Your task to perform on an android device: Open internet settings Image 0: 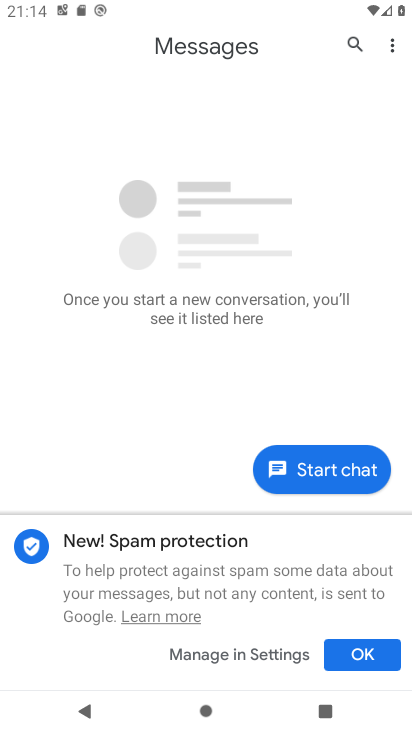
Step 0: press home button
Your task to perform on an android device: Open internet settings Image 1: 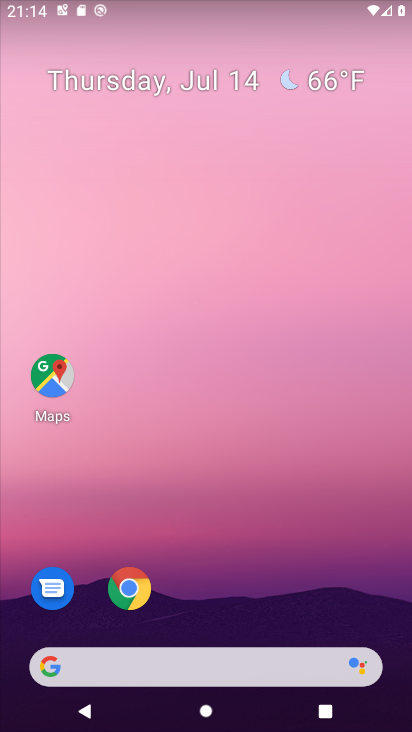
Step 1: drag from (370, 565) to (372, 145)
Your task to perform on an android device: Open internet settings Image 2: 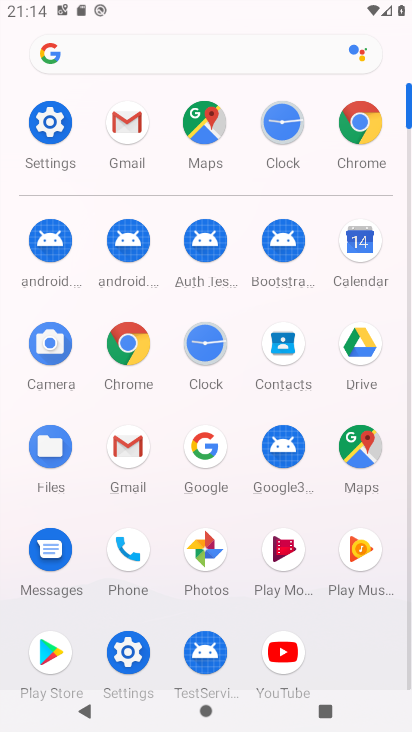
Step 2: click (132, 656)
Your task to perform on an android device: Open internet settings Image 3: 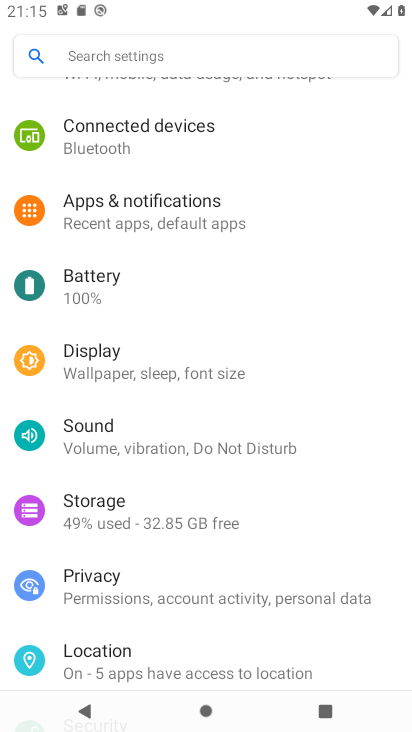
Step 3: drag from (313, 537) to (317, 401)
Your task to perform on an android device: Open internet settings Image 4: 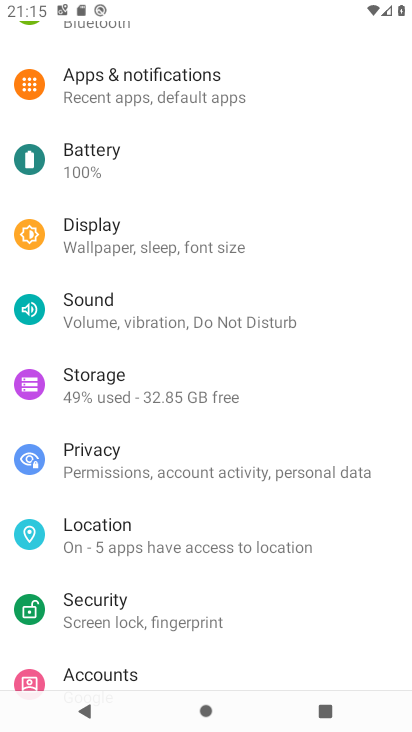
Step 4: drag from (343, 563) to (341, 467)
Your task to perform on an android device: Open internet settings Image 5: 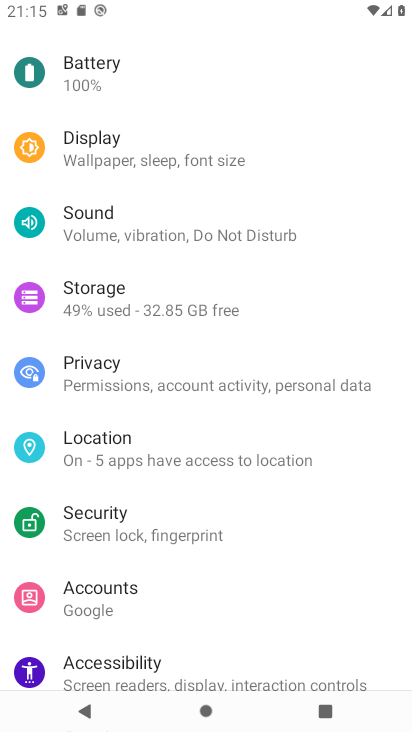
Step 5: drag from (355, 573) to (357, 468)
Your task to perform on an android device: Open internet settings Image 6: 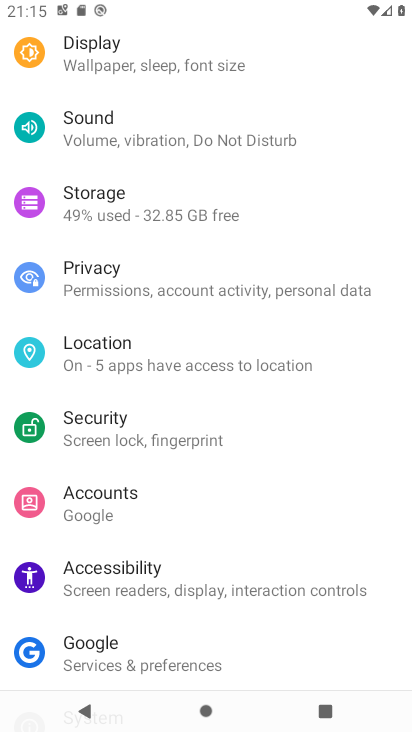
Step 6: drag from (330, 613) to (330, 523)
Your task to perform on an android device: Open internet settings Image 7: 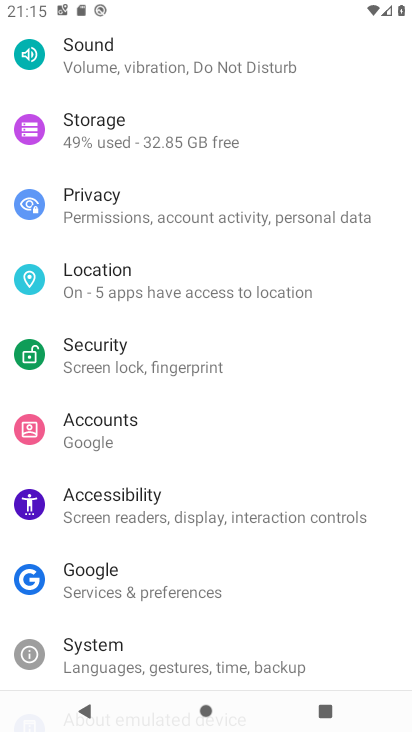
Step 7: drag from (329, 623) to (330, 402)
Your task to perform on an android device: Open internet settings Image 8: 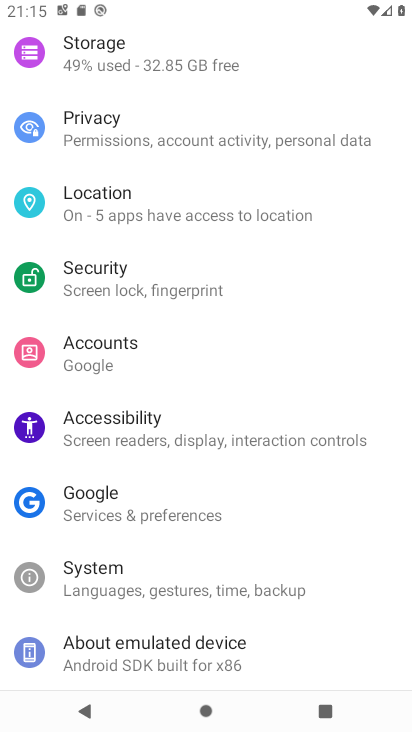
Step 8: drag from (340, 311) to (343, 387)
Your task to perform on an android device: Open internet settings Image 9: 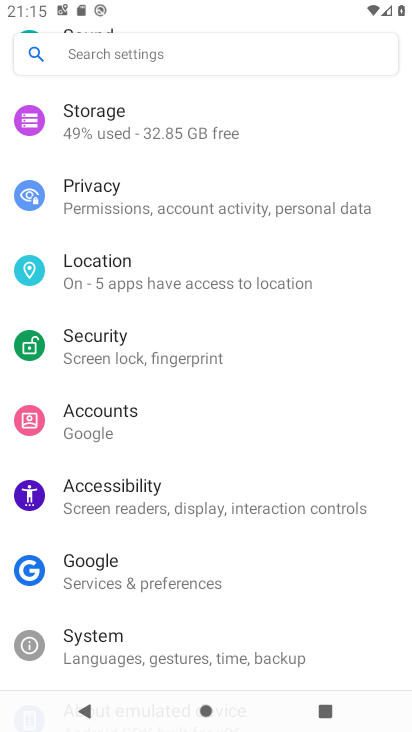
Step 9: drag from (343, 305) to (339, 393)
Your task to perform on an android device: Open internet settings Image 10: 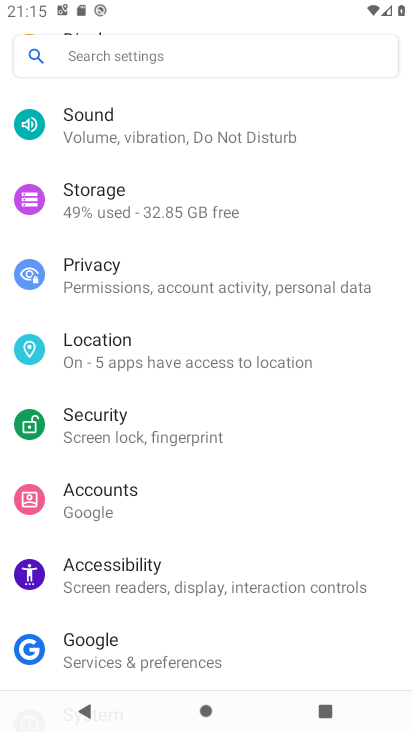
Step 10: drag from (351, 278) to (352, 379)
Your task to perform on an android device: Open internet settings Image 11: 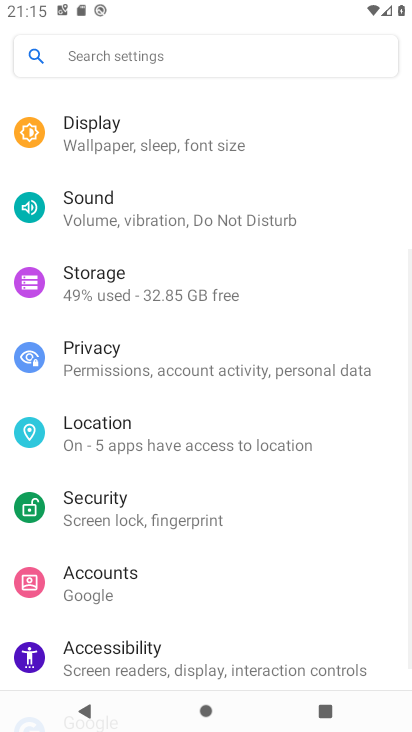
Step 11: drag from (350, 278) to (352, 372)
Your task to perform on an android device: Open internet settings Image 12: 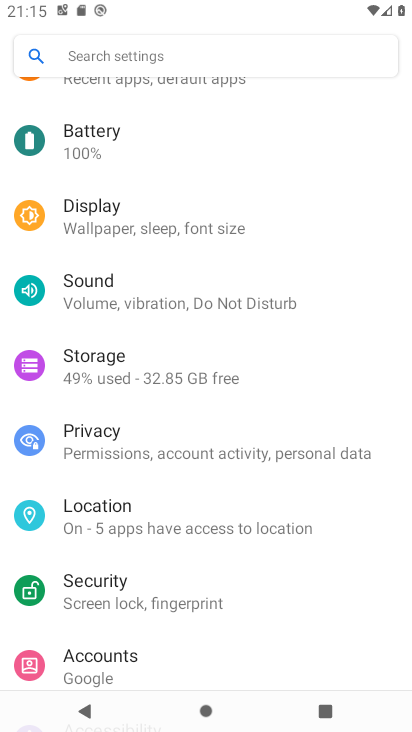
Step 12: drag from (353, 277) to (354, 349)
Your task to perform on an android device: Open internet settings Image 13: 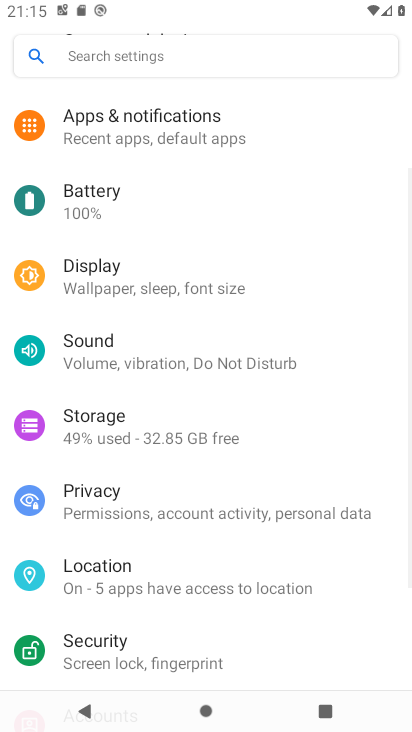
Step 13: drag from (348, 262) to (348, 356)
Your task to perform on an android device: Open internet settings Image 14: 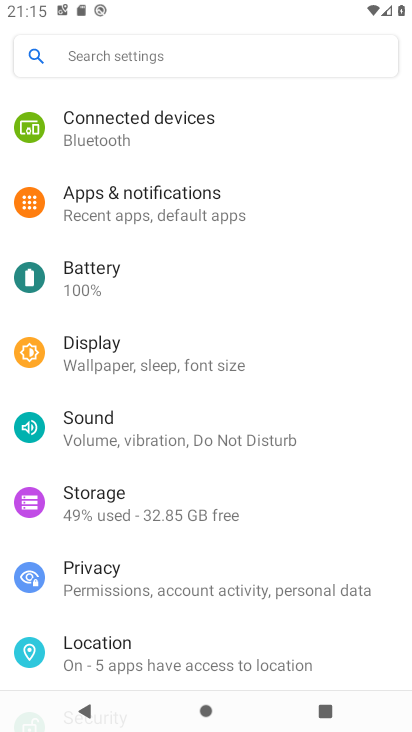
Step 14: drag from (334, 238) to (336, 355)
Your task to perform on an android device: Open internet settings Image 15: 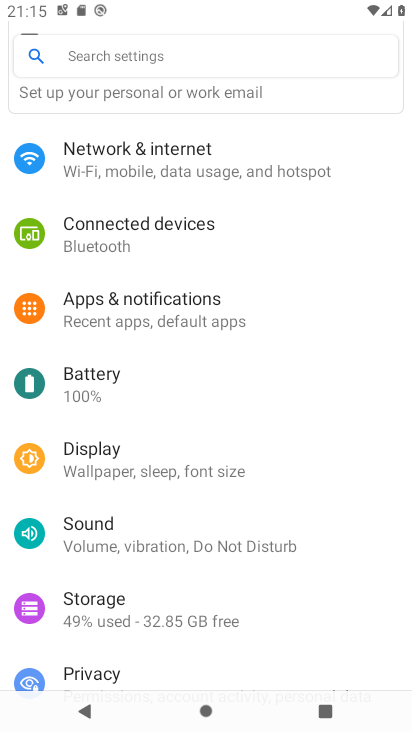
Step 15: drag from (336, 262) to (336, 337)
Your task to perform on an android device: Open internet settings Image 16: 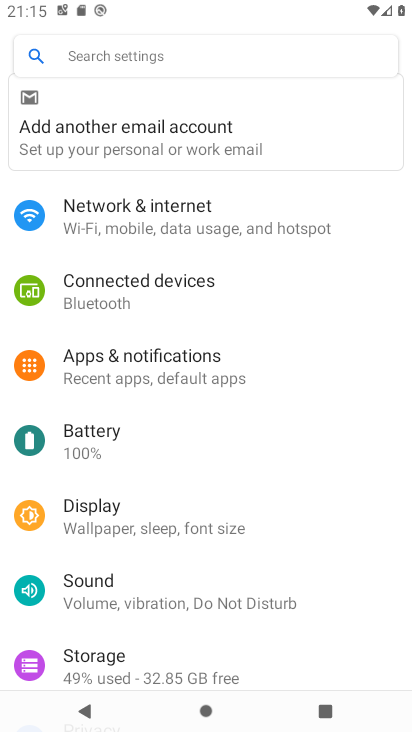
Step 16: drag from (356, 214) to (356, 331)
Your task to perform on an android device: Open internet settings Image 17: 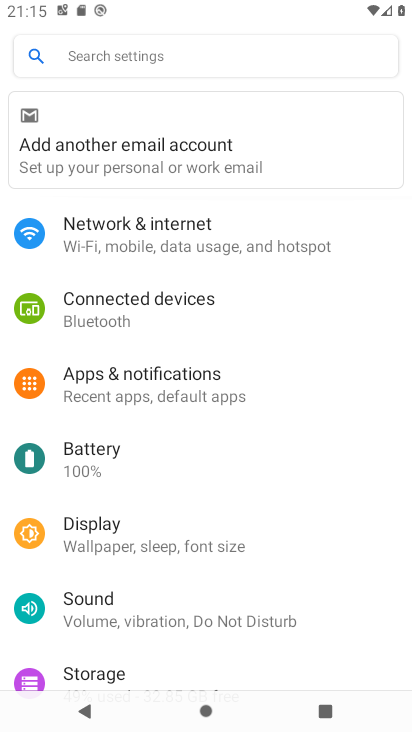
Step 17: click (320, 246)
Your task to perform on an android device: Open internet settings Image 18: 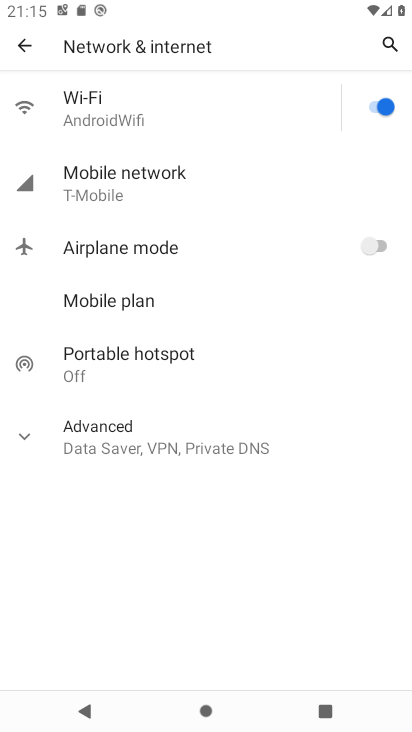
Step 18: task complete